Your task to perform on an android device: toggle notifications settings in the gmail app Image 0: 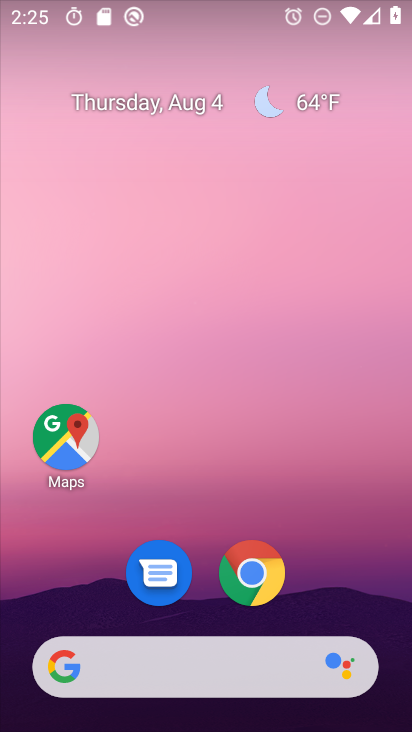
Step 0: drag from (350, 599) to (343, 183)
Your task to perform on an android device: toggle notifications settings in the gmail app Image 1: 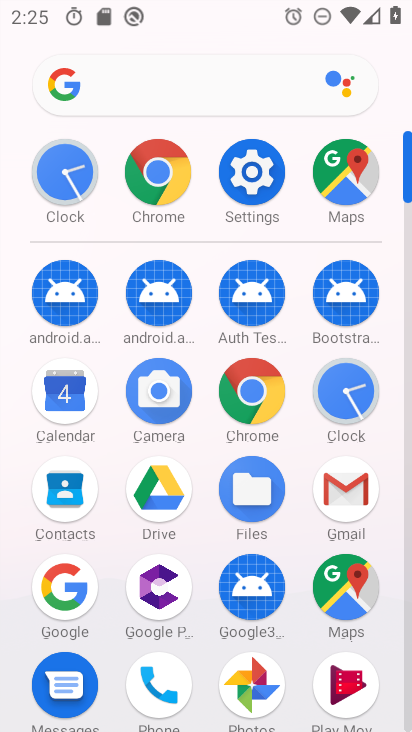
Step 1: click (357, 499)
Your task to perform on an android device: toggle notifications settings in the gmail app Image 2: 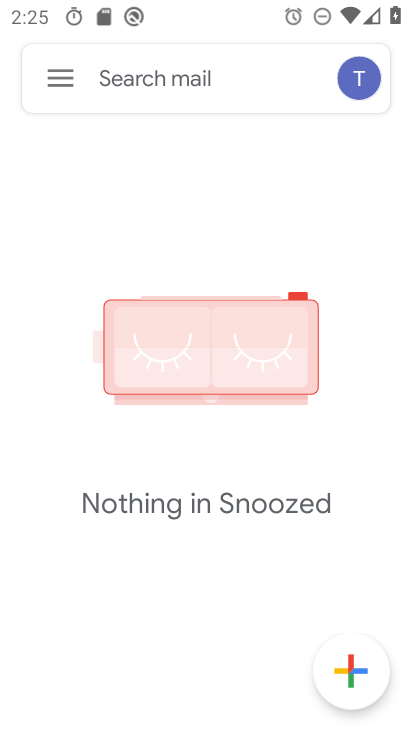
Step 2: click (52, 64)
Your task to perform on an android device: toggle notifications settings in the gmail app Image 3: 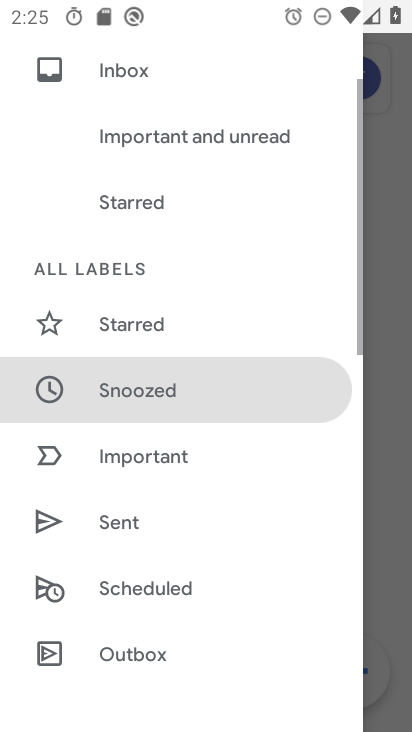
Step 3: drag from (110, 590) to (187, 161)
Your task to perform on an android device: toggle notifications settings in the gmail app Image 4: 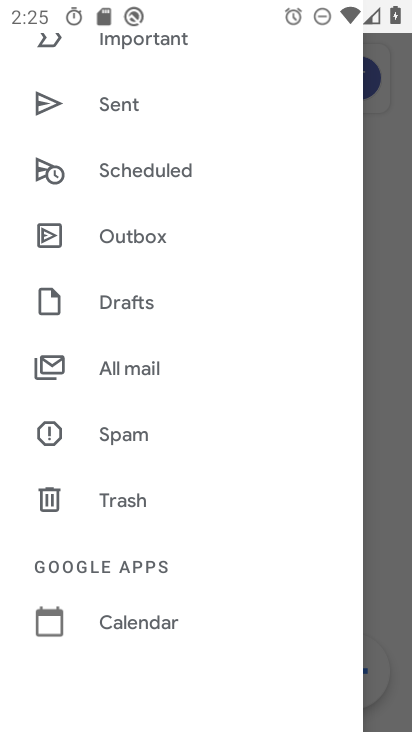
Step 4: drag from (120, 552) to (156, 272)
Your task to perform on an android device: toggle notifications settings in the gmail app Image 5: 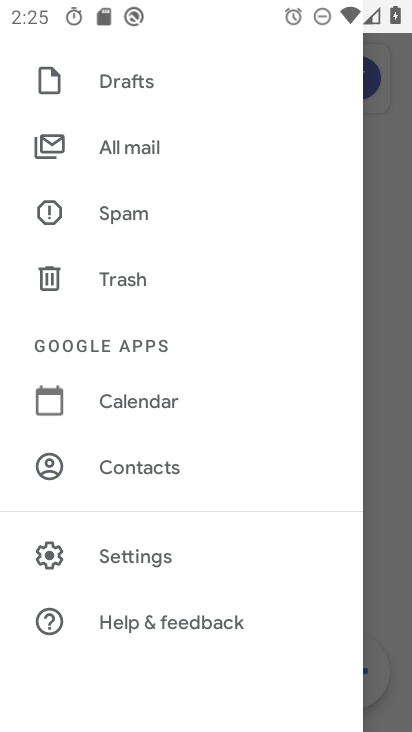
Step 5: click (134, 562)
Your task to perform on an android device: toggle notifications settings in the gmail app Image 6: 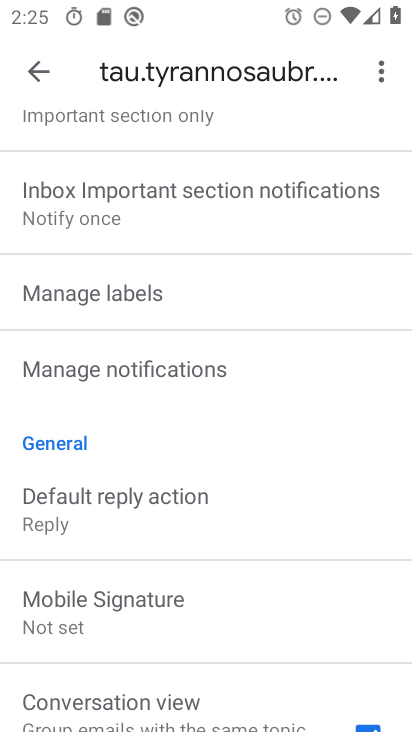
Step 6: click (171, 364)
Your task to perform on an android device: toggle notifications settings in the gmail app Image 7: 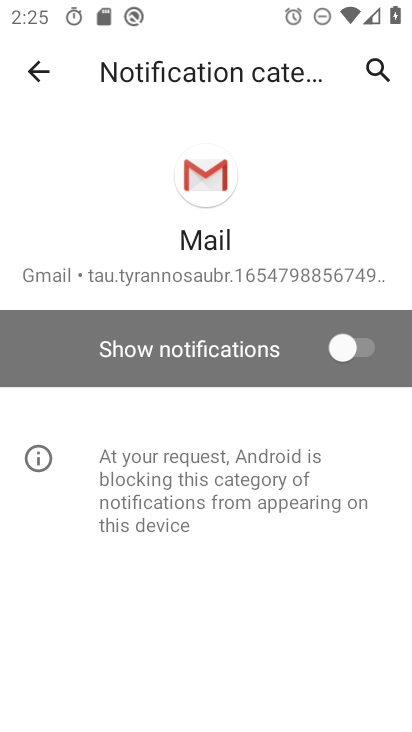
Step 7: click (332, 366)
Your task to perform on an android device: toggle notifications settings in the gmail app Image 8: 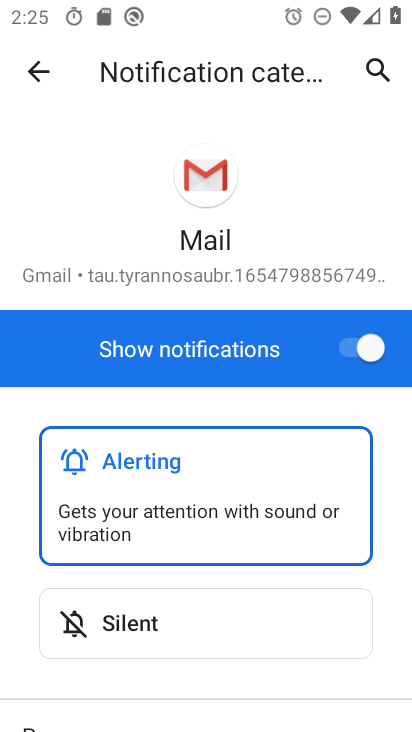
Step 8: task complete